Your task to perform on an android device: add a contact Image 0: 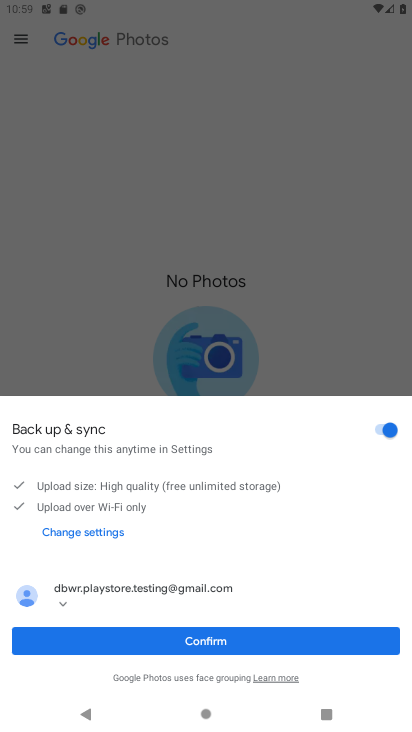
Step 0: press home button
Your task to perform on an android device: add a contact Image 1: 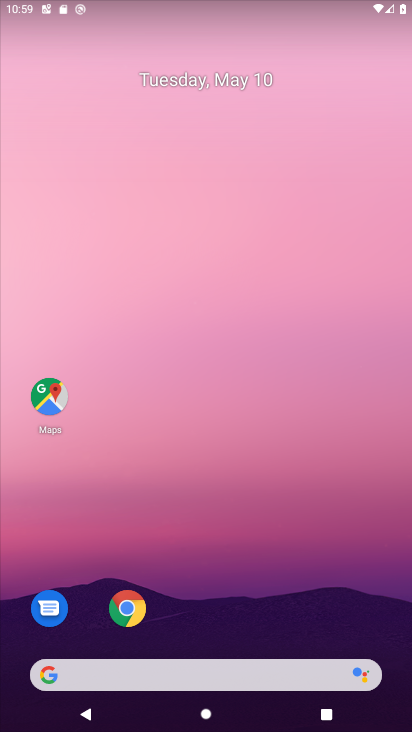
Step 1: drag from (221, 669) to (221, 107)
Your task to perform on an android device: add a contact Image 2: 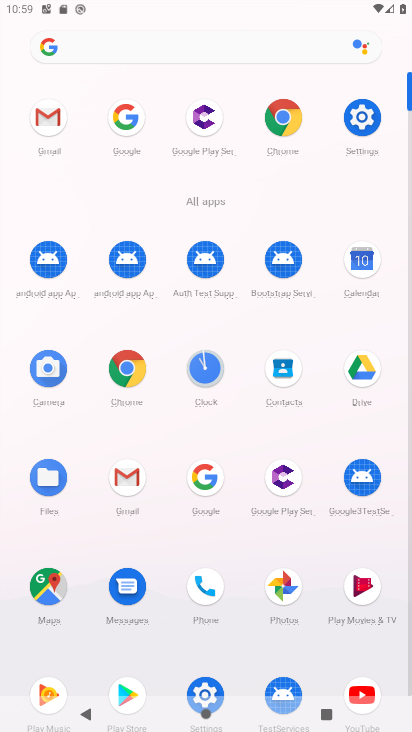
Step 2: click (277, 373)
Your task to perform on an android device: add a contact Image 3: 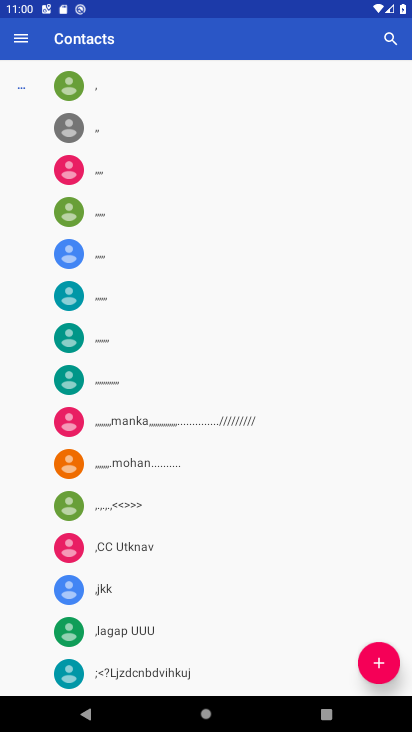
Step 3: click (387, 666)
Your task to perform on an android device: add a contact Image 4: 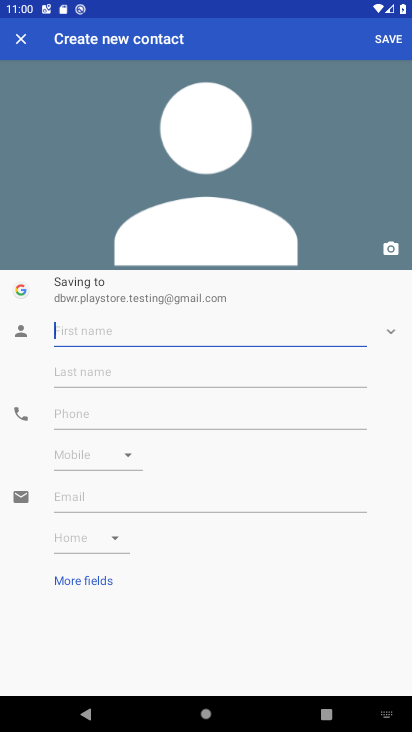
Step 4: type "xvfddfbc"
Your task to perform on an android device: add a contact Image 5: 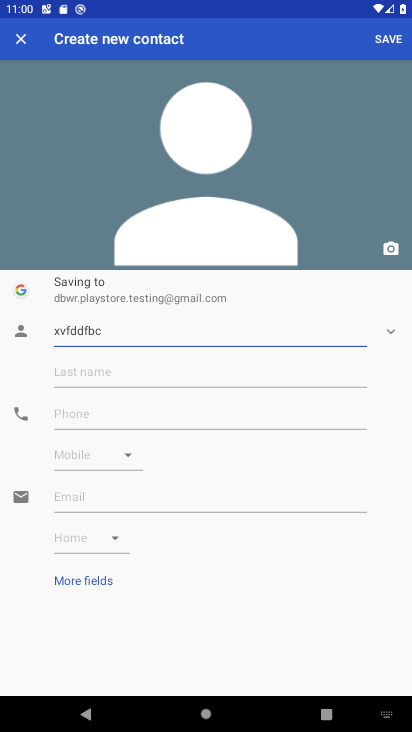
Step 5: click (226, 408)
Your task to perform on an android device: add a contact Image 6: 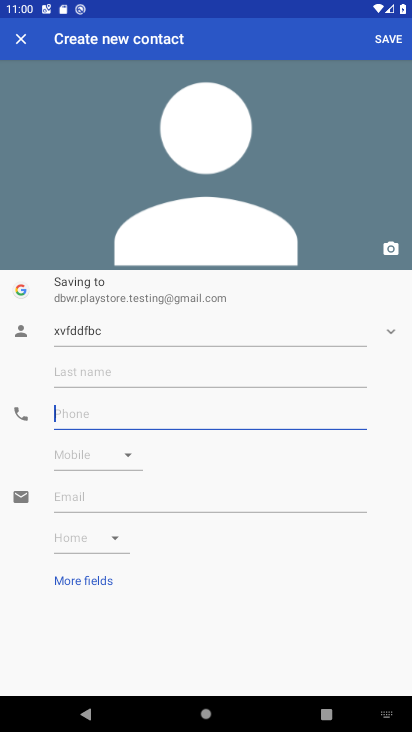
Step 6: type "565758"
Your task to perform on an android device: add a contact Image 7: 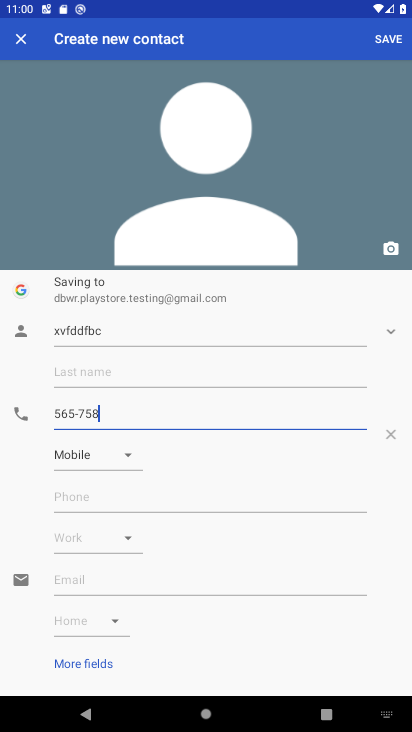
Step 7: click (382, 49)
Your task to perform on an android device: add a contact Image 8: 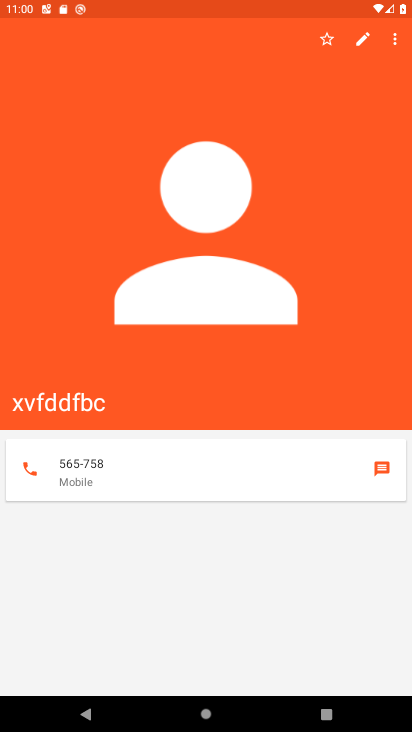
Step 8: task complete